Your task to perform on an android device: toggle improve location accuracy Image 0: 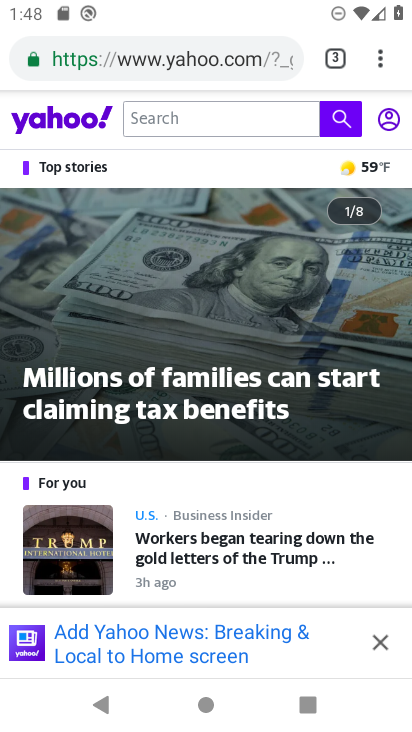
Step 0: press home button
Your task to perform on an android device: toggle improve location accuracy Image 1: 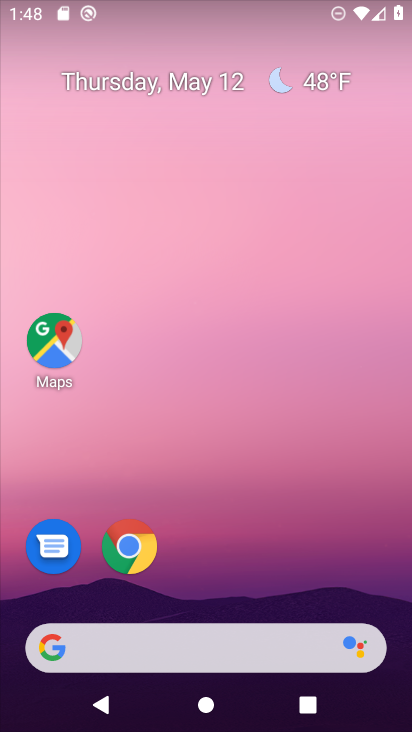
Step 1: drag from (237, 682) to (80, 229)
Your task to perform on an android device: toggle improve location accuracy Image 2: 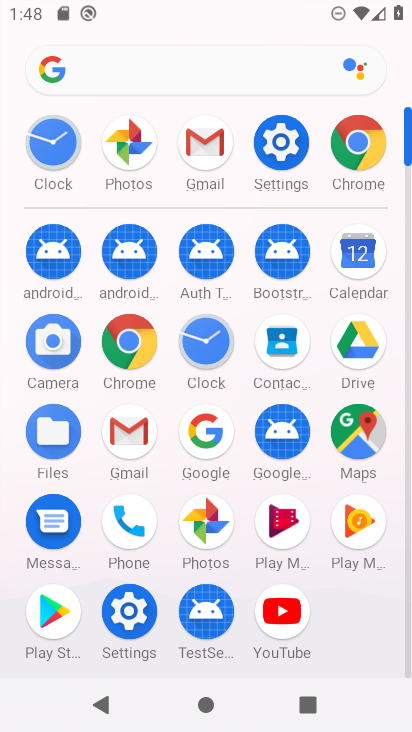
Step 2: click (301, 141)
Your task to perform on an android device: toggle improve location accuracy Image 3: 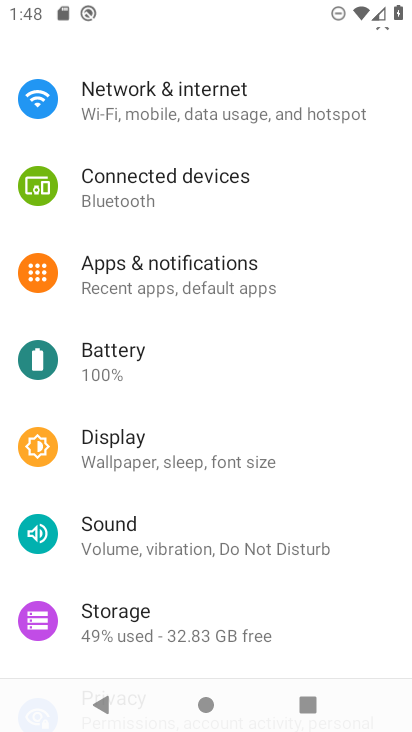
Step 3: drag from (195, 146) to (265, 337)
Your task to perform on an android device: toggle improve location accuracy Image 4: 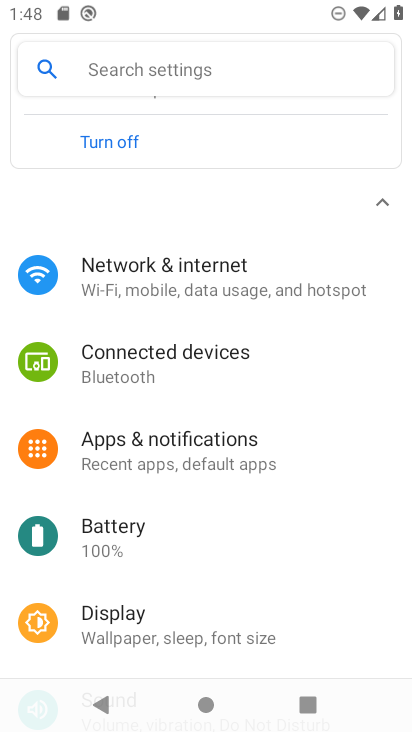
Step 4: click (149, 78)
Your task to perform on an android device: toggle improve location accuracy Image 5: 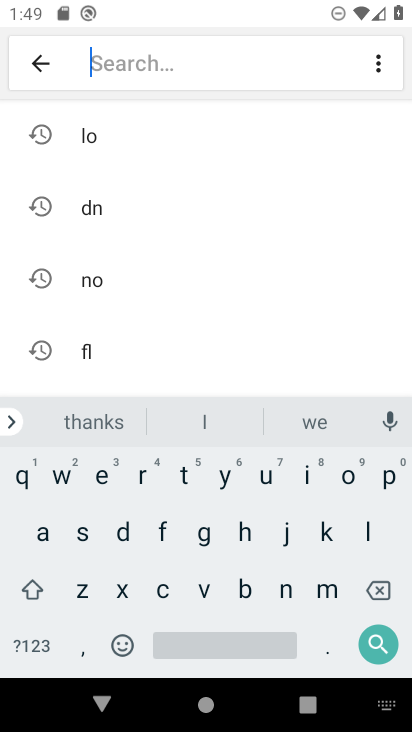
Step 5: click (100, 145)
Your task to perform on an android device: toggle improve location accuracy Image 6: 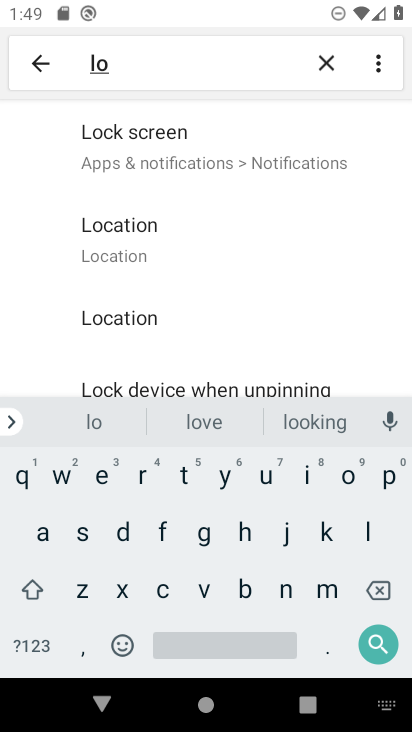
Step 6: click (149, 251)
Your task to perform on an android device: toggle improve location accuracy Image 7: 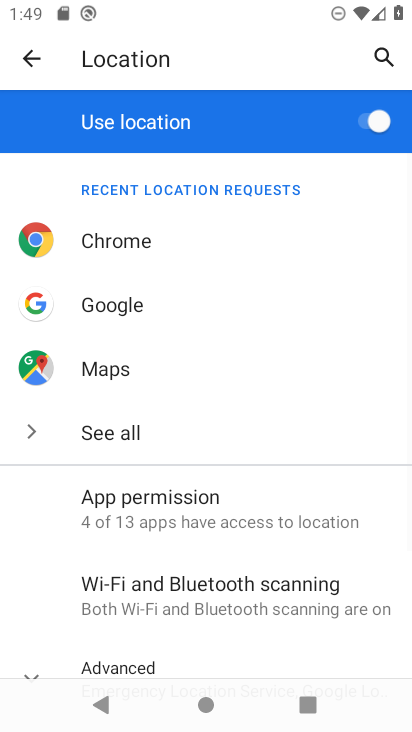
Step 7: drag from (174, 593) to (147, 387)
Your task to perform on an android device: toggle improve location accuracy Image 8: 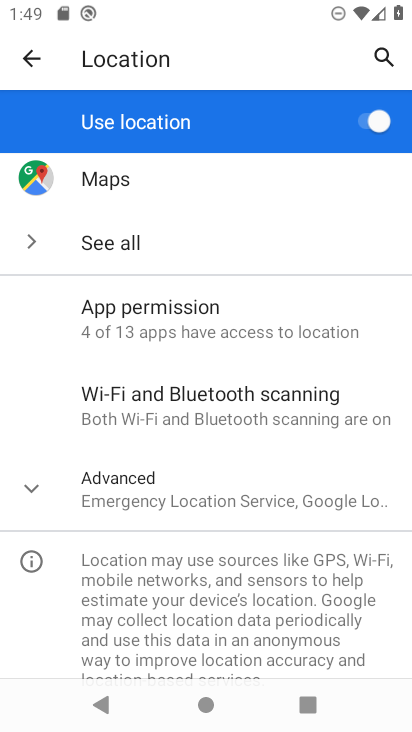
Step 8: click (89, 480)
Your task to perform on an android device: toggle improve location accuracy Image 9: 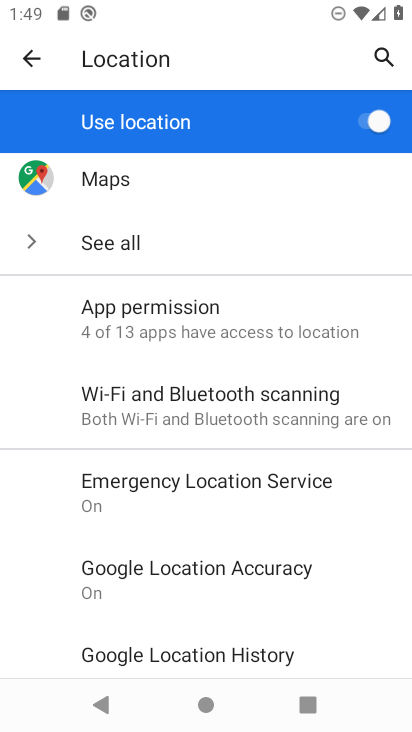
Step 9: click (197, 564)
Your task to perform on an android device: toggle improve location accuracy Image 10: 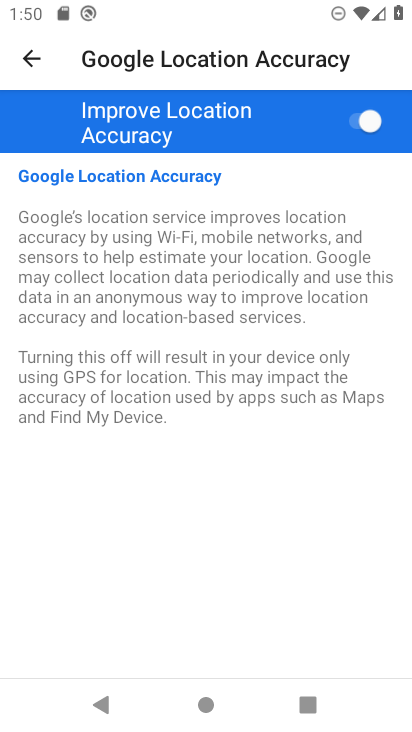
Step 10: task complete